Your task to perform on an android device: turn notification dots off Image 0: 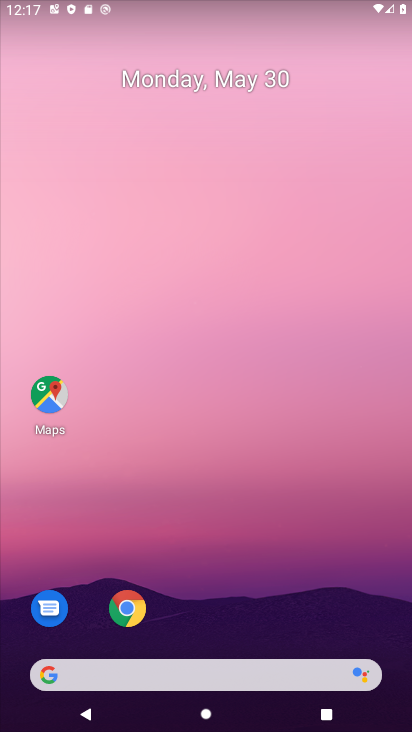
Step 0: drag from (285, 604) to (287, 61)
Your task to perform on an android device: turn notification dots off Image 1: 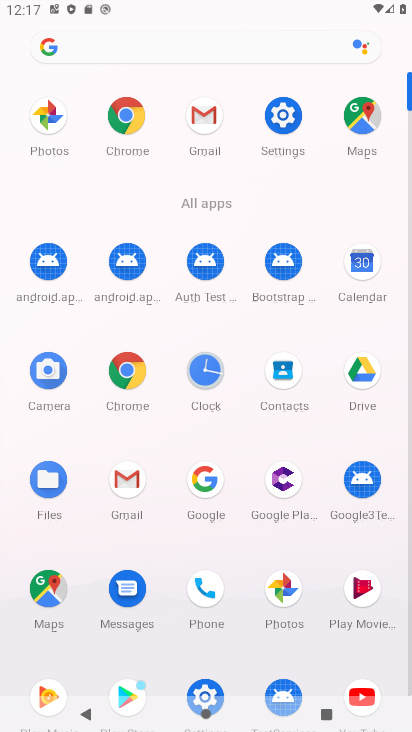
Step 1: click (279, 107)
Your task to perform on an android device: turn notification dots off Image 2: 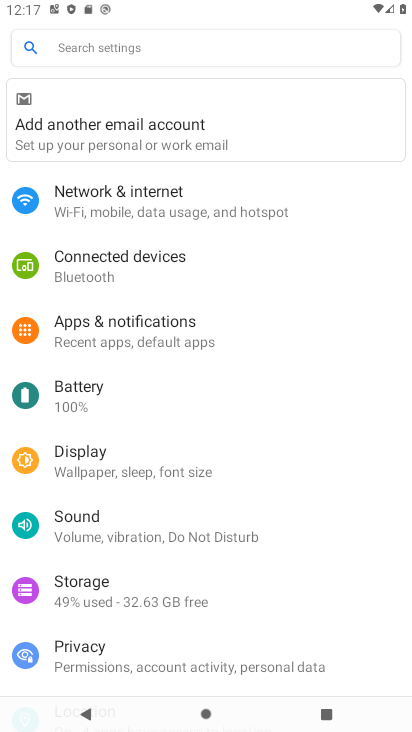
Step 2: click (163, 337)
Your task to perform on an android device: turn notification dots off Image 3: 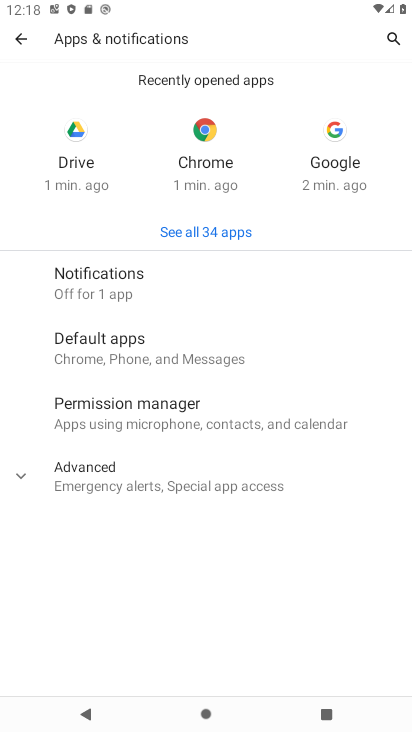
Step 3: click (201, 277)
Your task to perform on an android device: turn notification dots off Image 4: 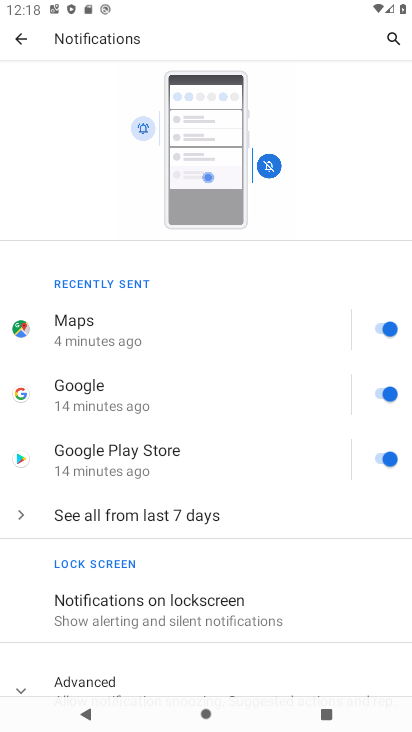
Step 4: drag from (219, 660) to (276, 306)
Your task to perform on an android device: turn notification dots off Image 5: 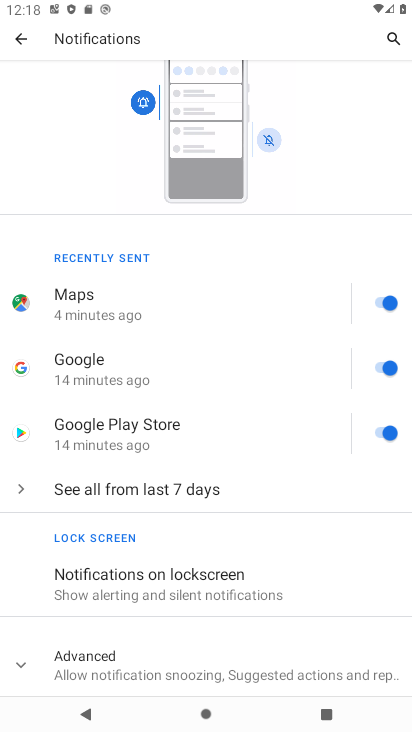
Step 5: click (235, 652)
Your task to perform on an android device: turn notification dots off Image 6: 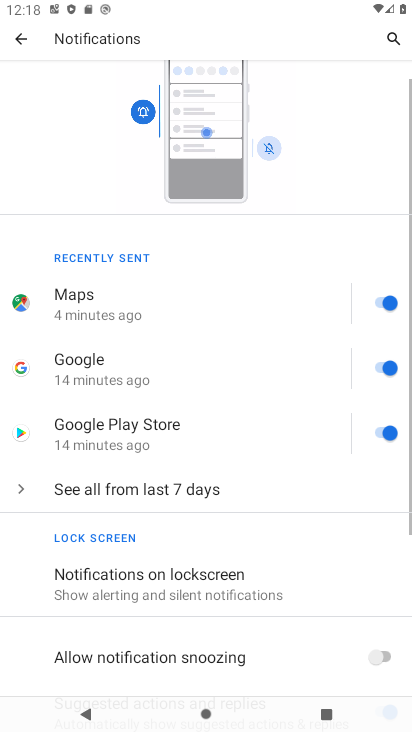
Step 6: drag from (247, 635) to (266, 234)
Your task to perform on an android device: turn notification dots off Image 7: 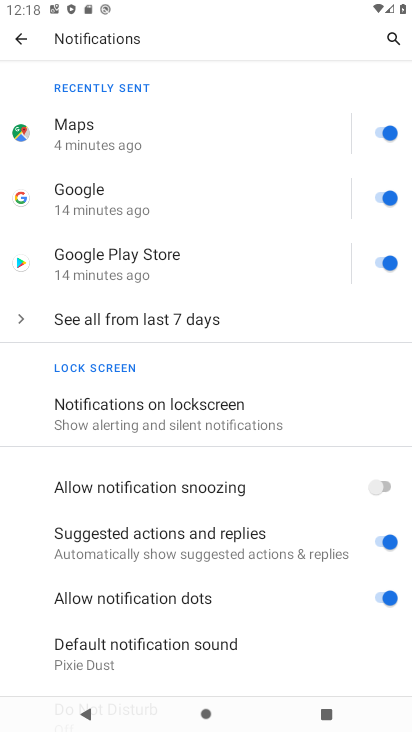
Step 7: click (381, 599)
Your task to perform on an android device: turn notification dots off Image 8: 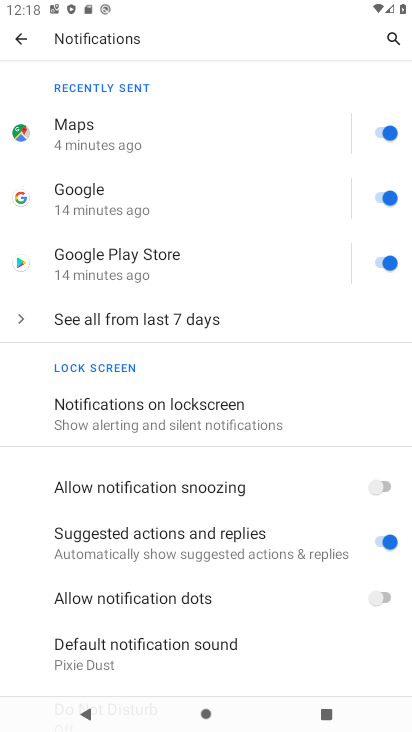
Step 8: task complete